Your task to perform on an android device: Open the calendar app, open the side menu, and click the "Day" option Image 0: 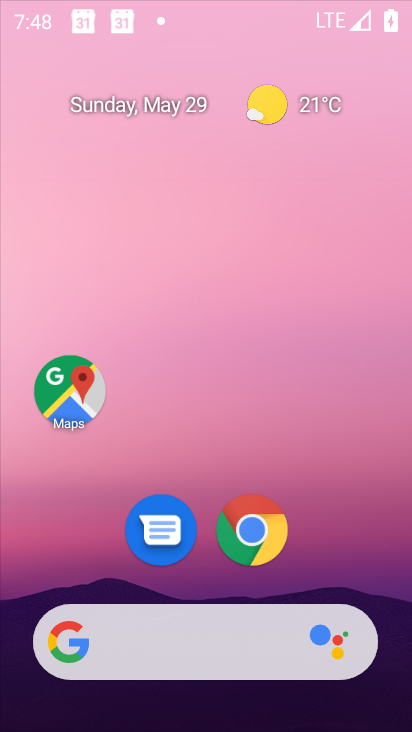
Step 0: press home button
Your task to perform on an android device: Open the calendar app, open the side menu, and click the "Day" option Image 1: 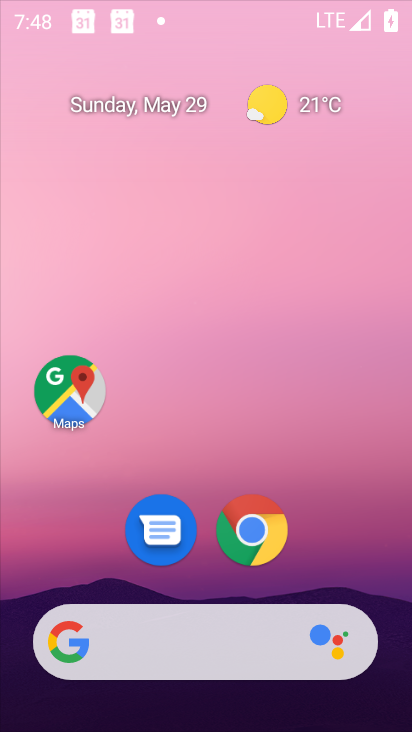
Step 1: click (333, 259)
Your task to perform on an android device: Open the calendar app, open the side menu, and click the "Day" option Image 2: 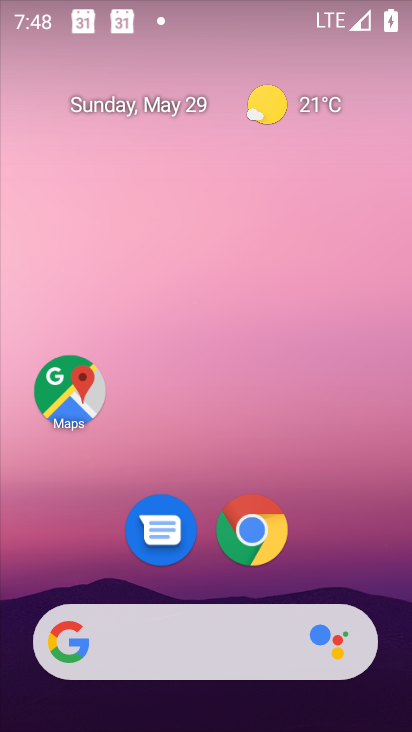
Step 2: drag from (239, 661) to (316, 119)
Your task to perform on an android device: Open the calendar app, open the side menu, and click the "Day" option Image 3: 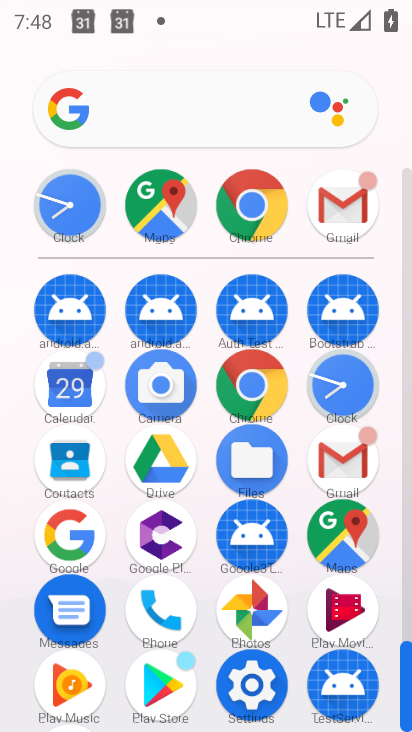
Step 3: click (78, 403)
Your task to perform on an android device: Open the calendar app, open the side menu, and click the "Day" option Image 4: 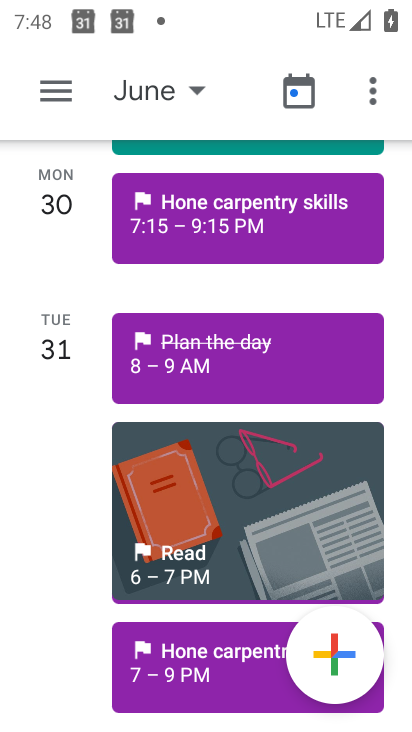
Step 4: click (50, 96)
Your task to perform on an android device: Open the calendar app, open the side menu, and click the "Day" option Image 5: 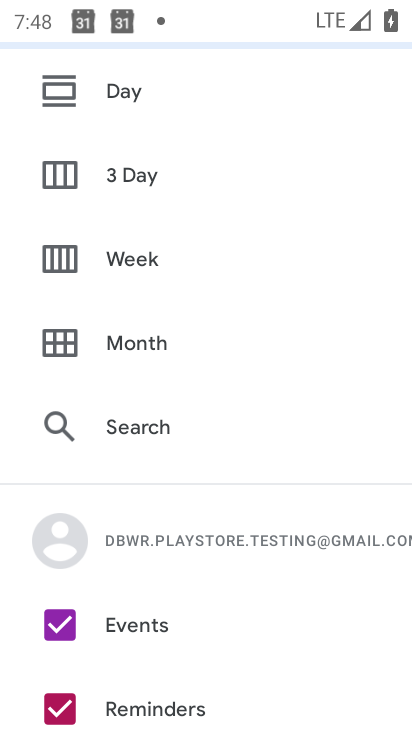
Step 5: click (173, 103)
Your task to perform on an android device: Open the calendar app, open the side menu, and click the "Day" option Image 6: 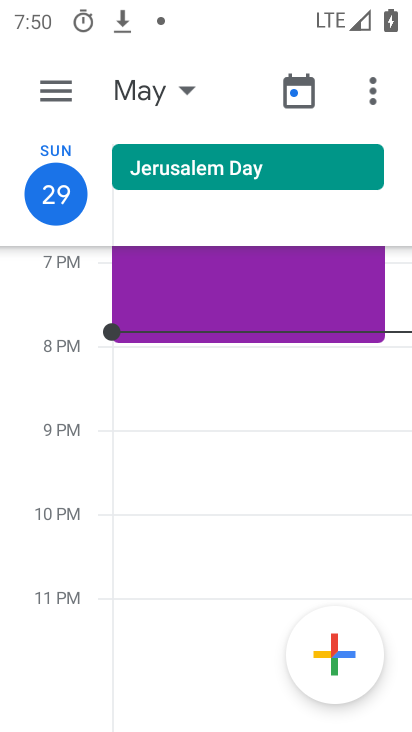
Step 6: task complete